Your task to perform on an android device: Show me productivity apps on the Play Store Image 0: 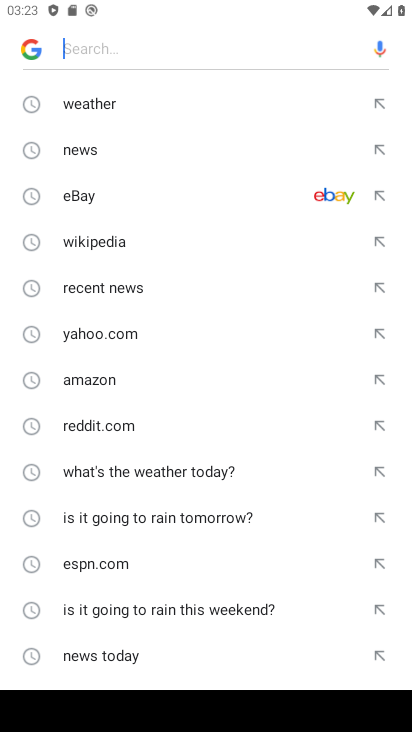
Step 0: press home button
Your task to perform on an android device: Show me productivity apps on the Play Store Image 1: 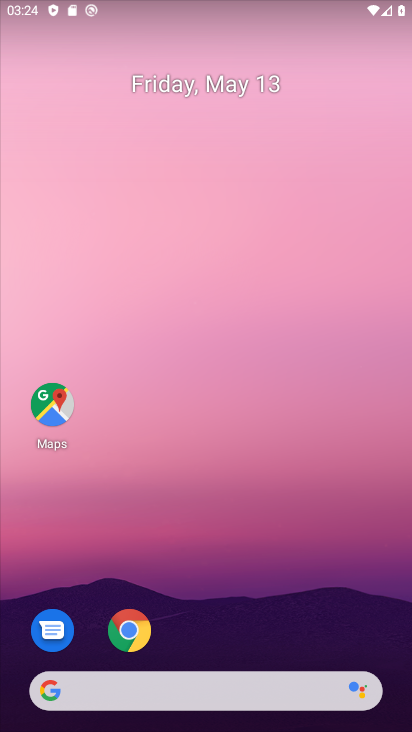
Step 1: drag from (206, 668) to (129, 153)
Your task to perform on an android device: Show me productivity apps on the Play Store Image 2: 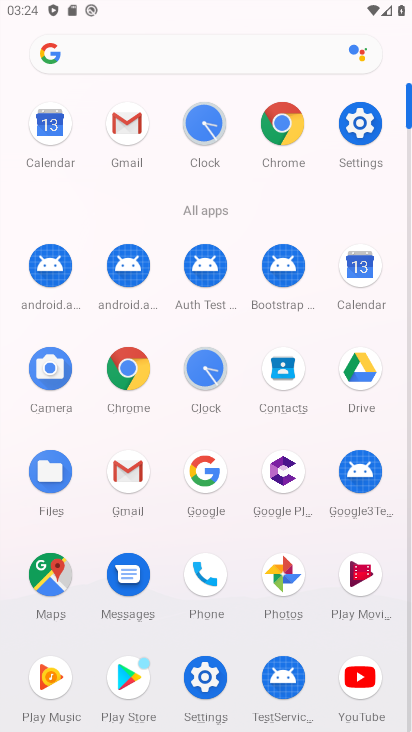
Step 2: click (140, 669)
Your task to perform on an android device: Show me productivity apps on the Play Store Image 3: 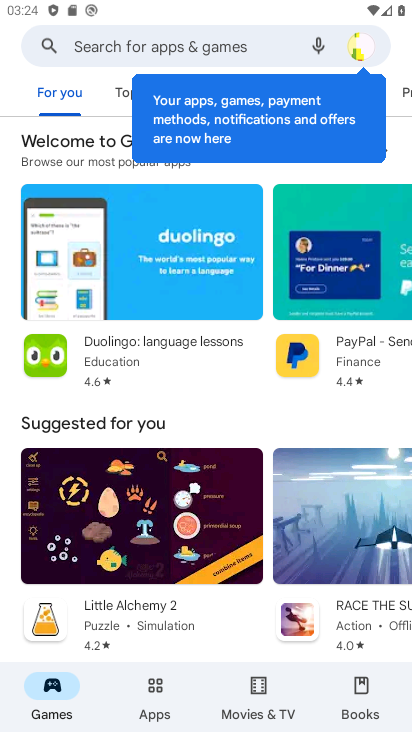
Step 3: click (158, 684)
Your task to perform on an android device: Show me productivity apps on the Play Store Image 4: 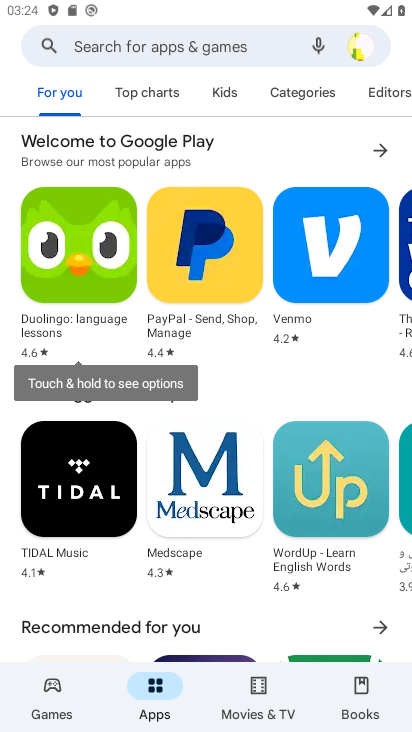
Step 4: click (313, 94)
Your task to perform on an android device: Show me productivity apps on the Play Store Image 5: 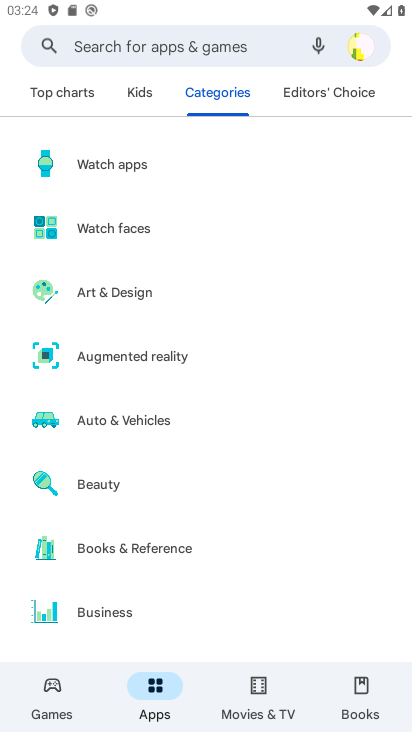
Step 5: drag from (207, 556) to (141, 38)
Your task to perform on an android device: Show me productivity apps on the Play Store Image 6: 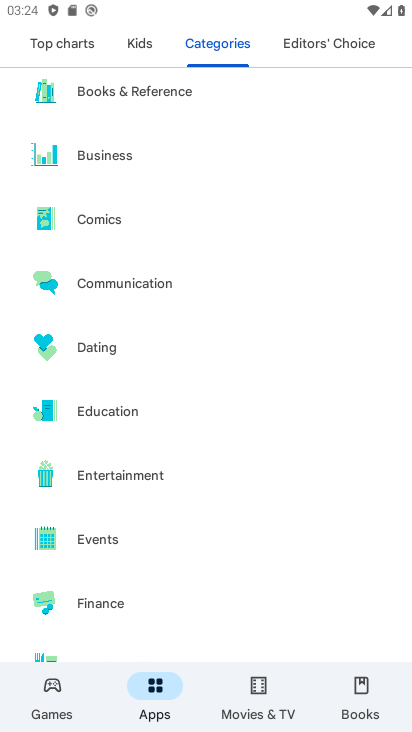
Step 6: drag from (133, 550) to (136, 84)
Your task to perform on an android device: Show me productivity apps on the Play Store Image 7: 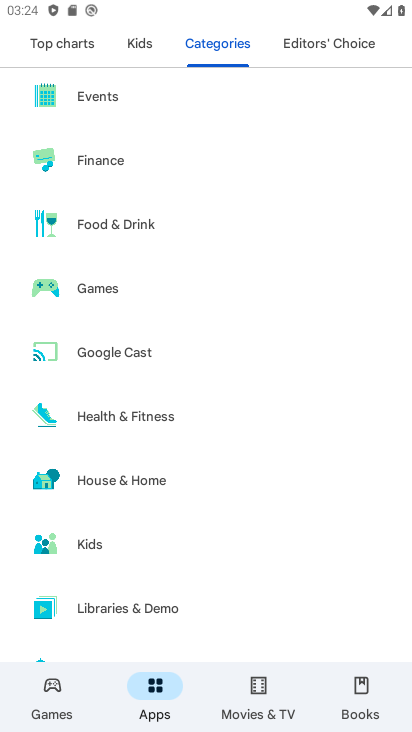
Step 7: drag from (163, 544) to (162, 182)
Your task to perform on an android device: Show me productivity apps on the Play Store Image 8: 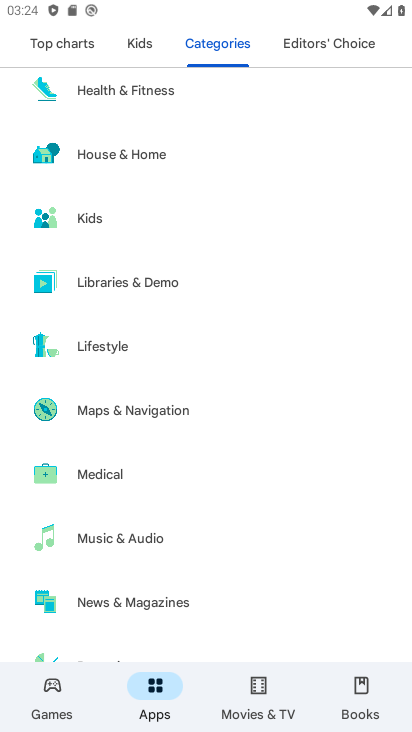
Step 8: drag from (162, 597) to (113, 107)
Your task to perform on an android device: Show me productivity apps on the Play Store Image 9: 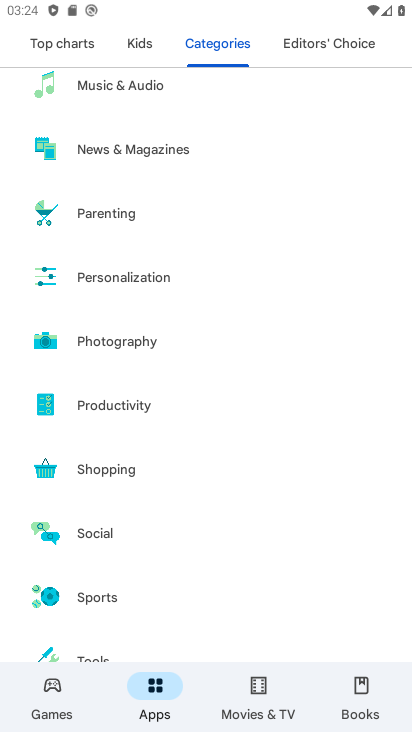
Step 9: click (103, 416)
Your task to perform on an android device: Show me productivity apps on the Play Store Image 10: 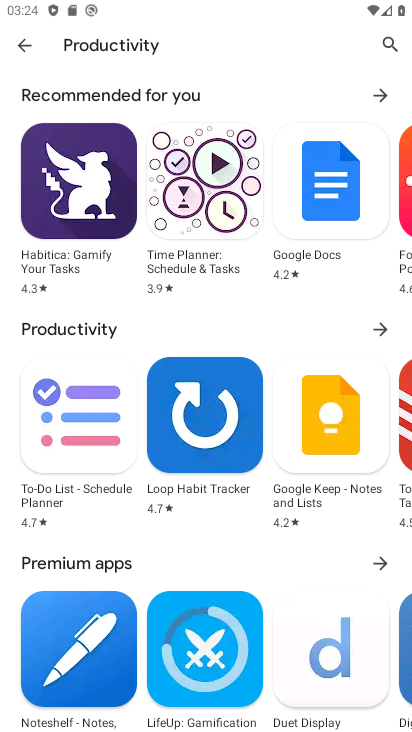
Step 10: task complete